Your task to perform on an android device: read, delete, or share a saved page in the chrome app Image 0: 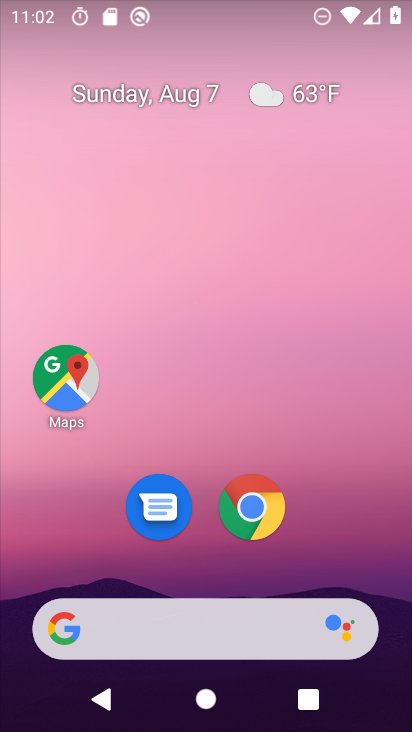
Step 0: drag from (349, 552) to (288, 40)
Your task to perform on an android device: read, delete, or share a saved page in the chrome app Image 1: 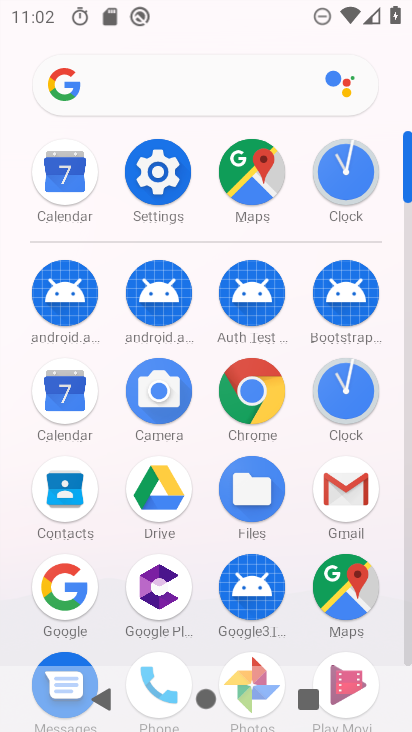
Step 1: click (254, 395)
Your task to perform on an android device: read, delete, or share a saved page in the chrome app Image 2: 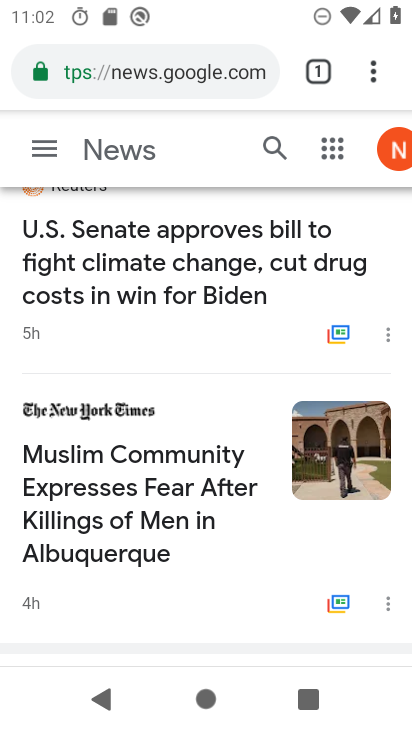
Step 2: task complete